Your task to perform on an android device: What's the news in Colombia? Image 0: 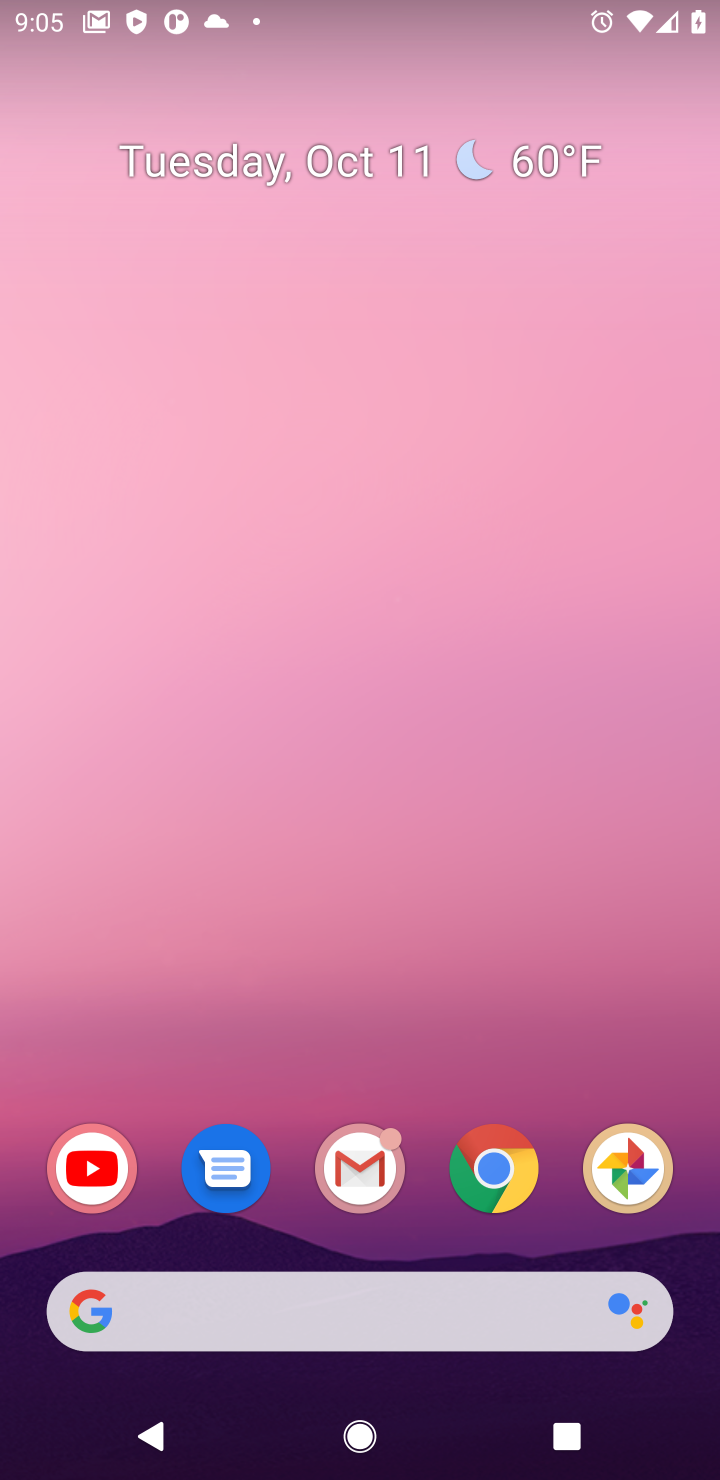
Step 0: click (477, 1181)
Your task to perform on an android device: What's the news in Colombia? Image 1: 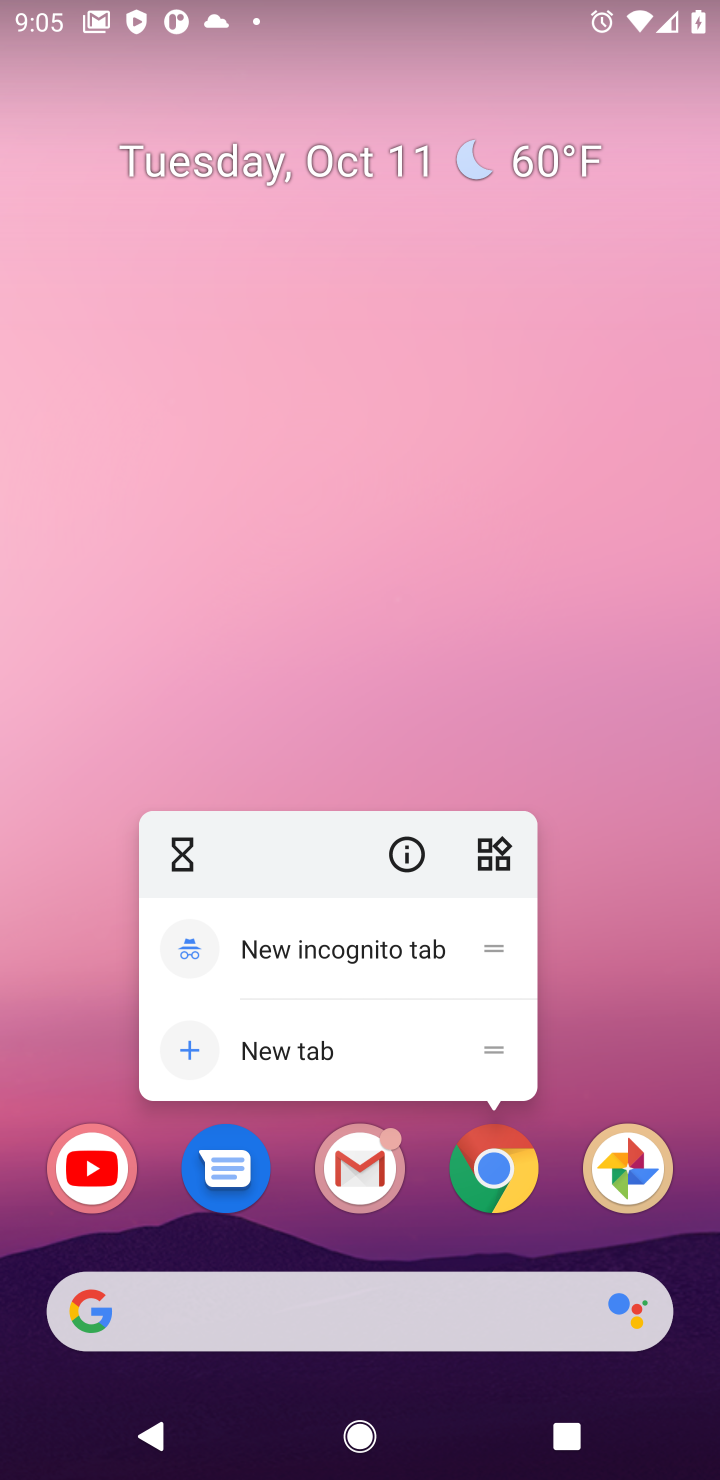
Step 1: press back button
Your task to perform on an android device: What's the news in Colombia? Image 2: 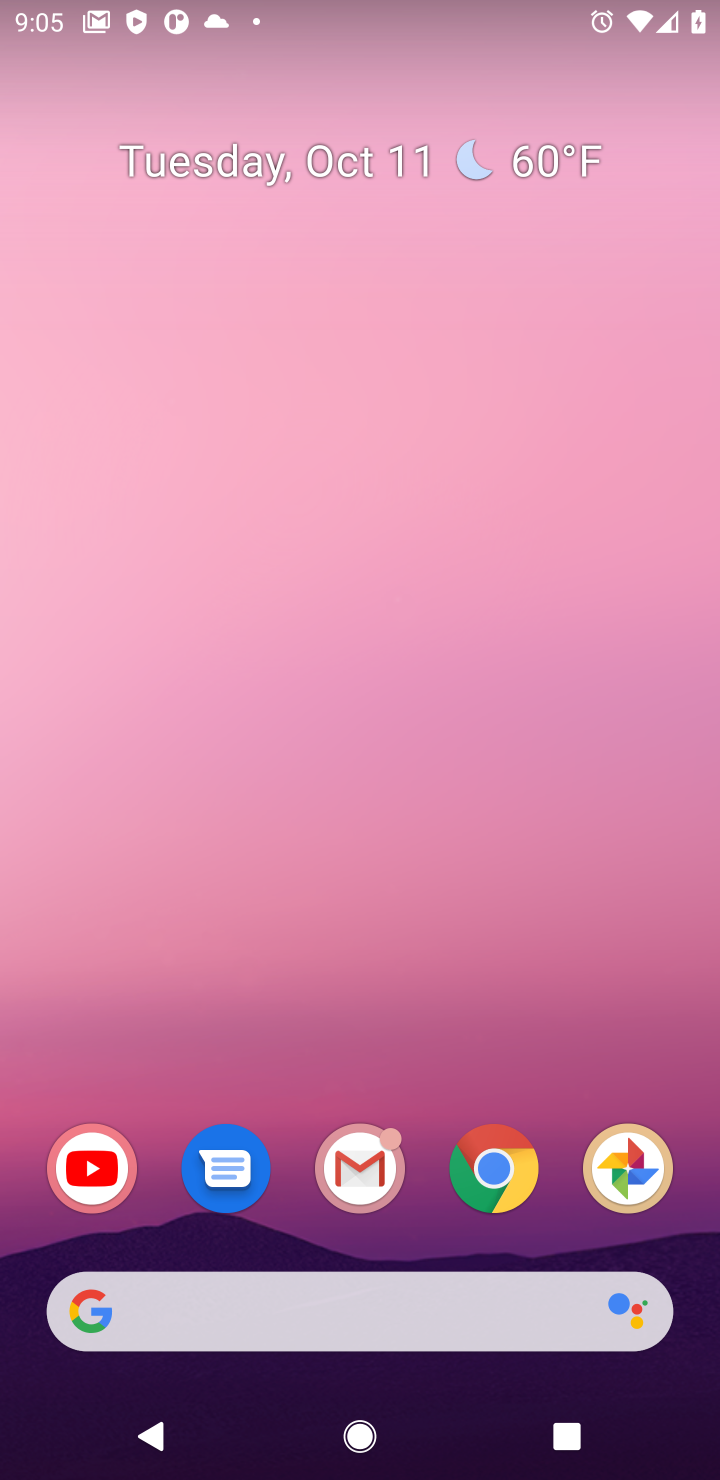
Step 2: click (488, 1138)
Your task to perform on an android device: What's the news in Colombia? Image 3: 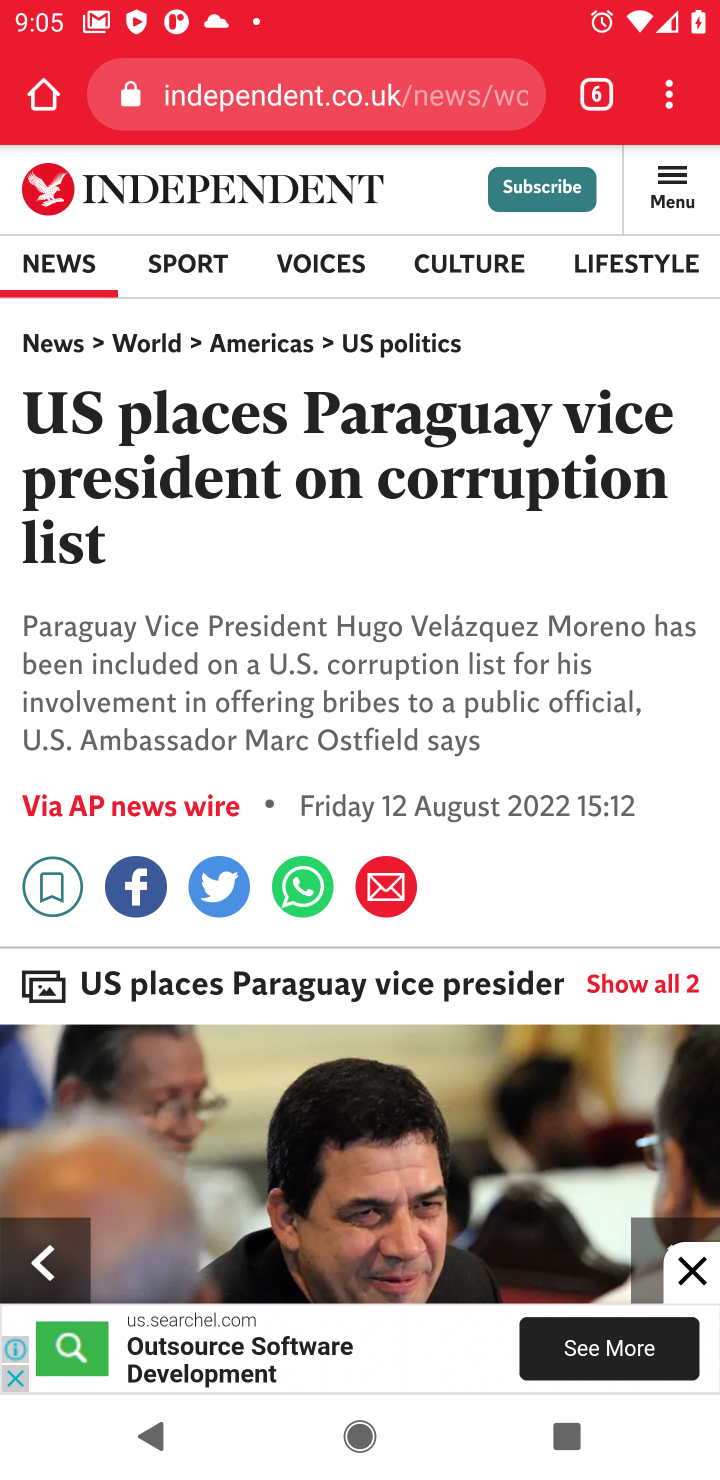
Step 3: click (359, 100)
Your task to perform on an android device: What's the news in Colombia? Image 4: 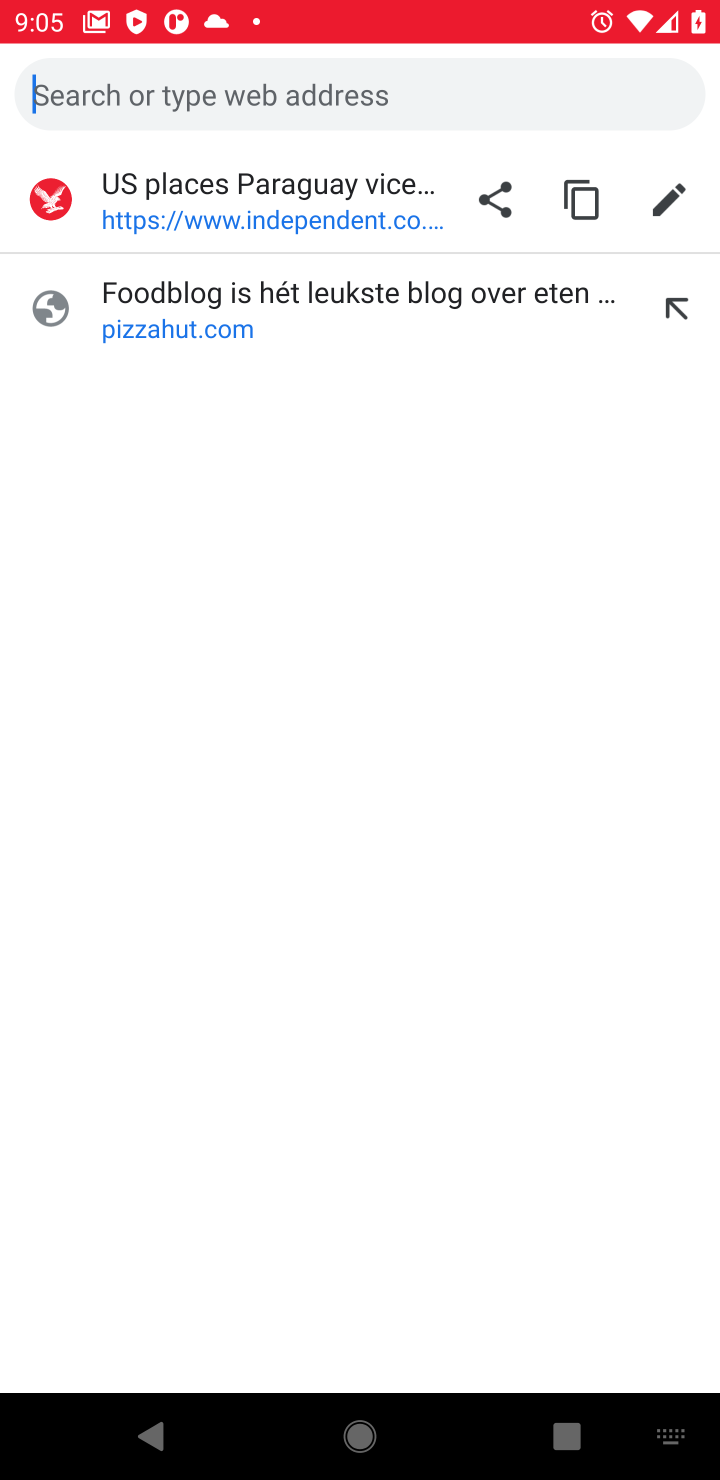
Step 4: type "news in colombia"
Your task to perform on an android device: What's the news in Colombia? Image 5: 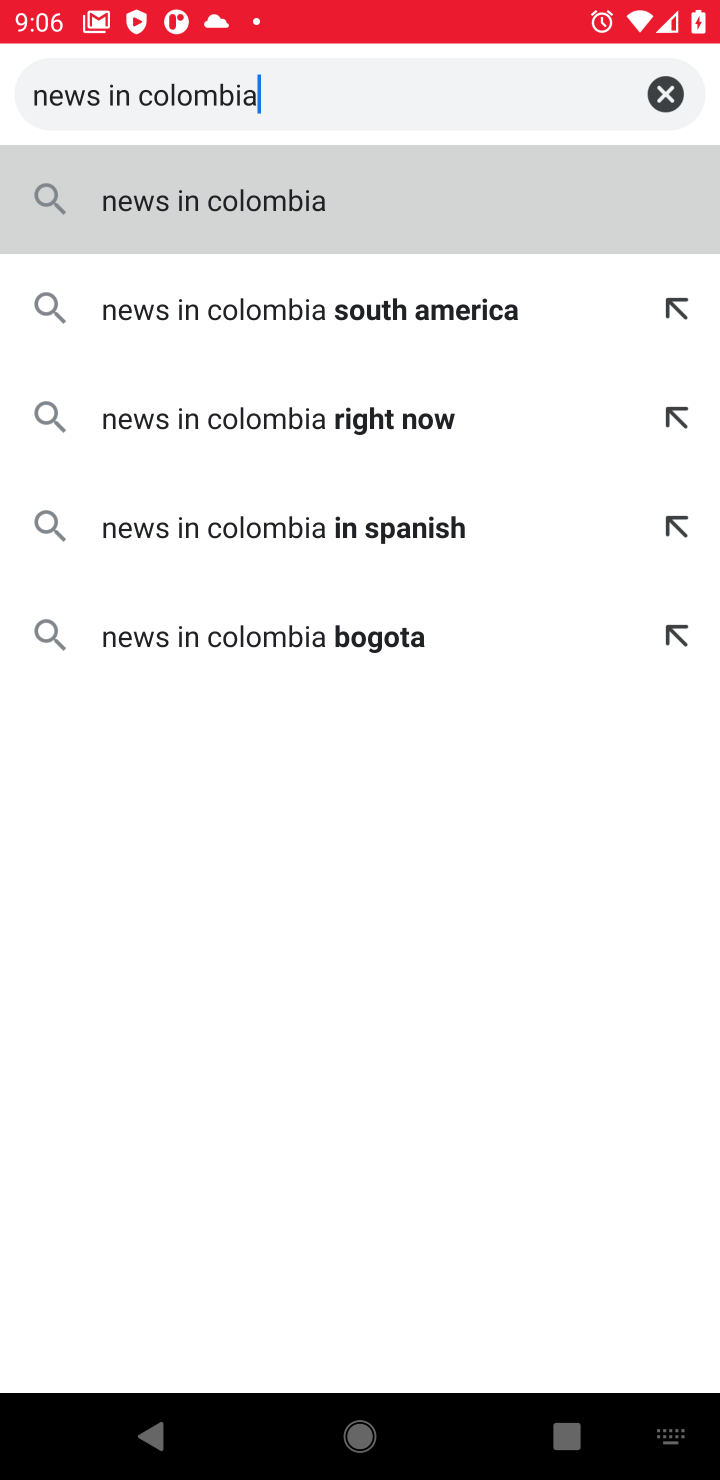
Step 5: click (227, 185)
Your task to perform on an android device: What's the news in Colombia? Image 6: 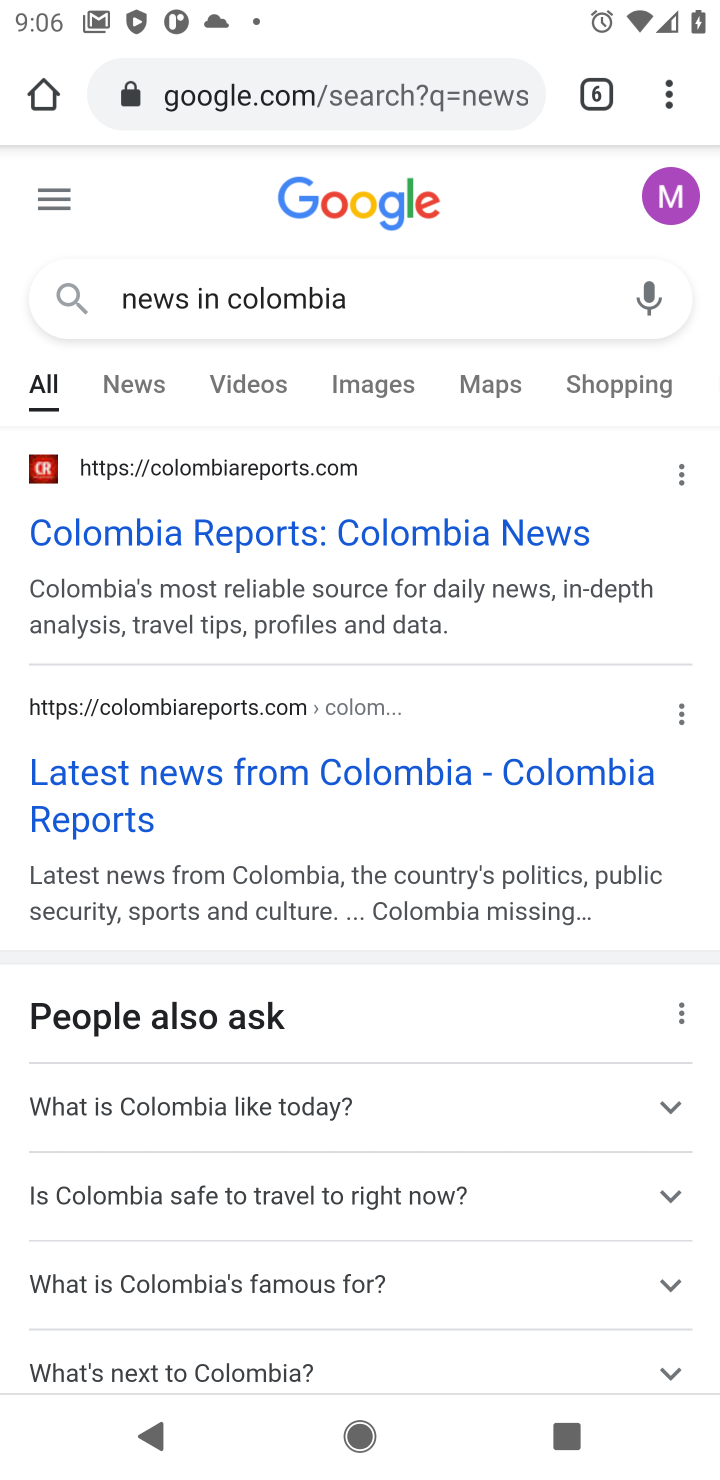
Step 6: click (225, 767)
Your task to perform on an android device: What's the news in Colombia? Image 7: 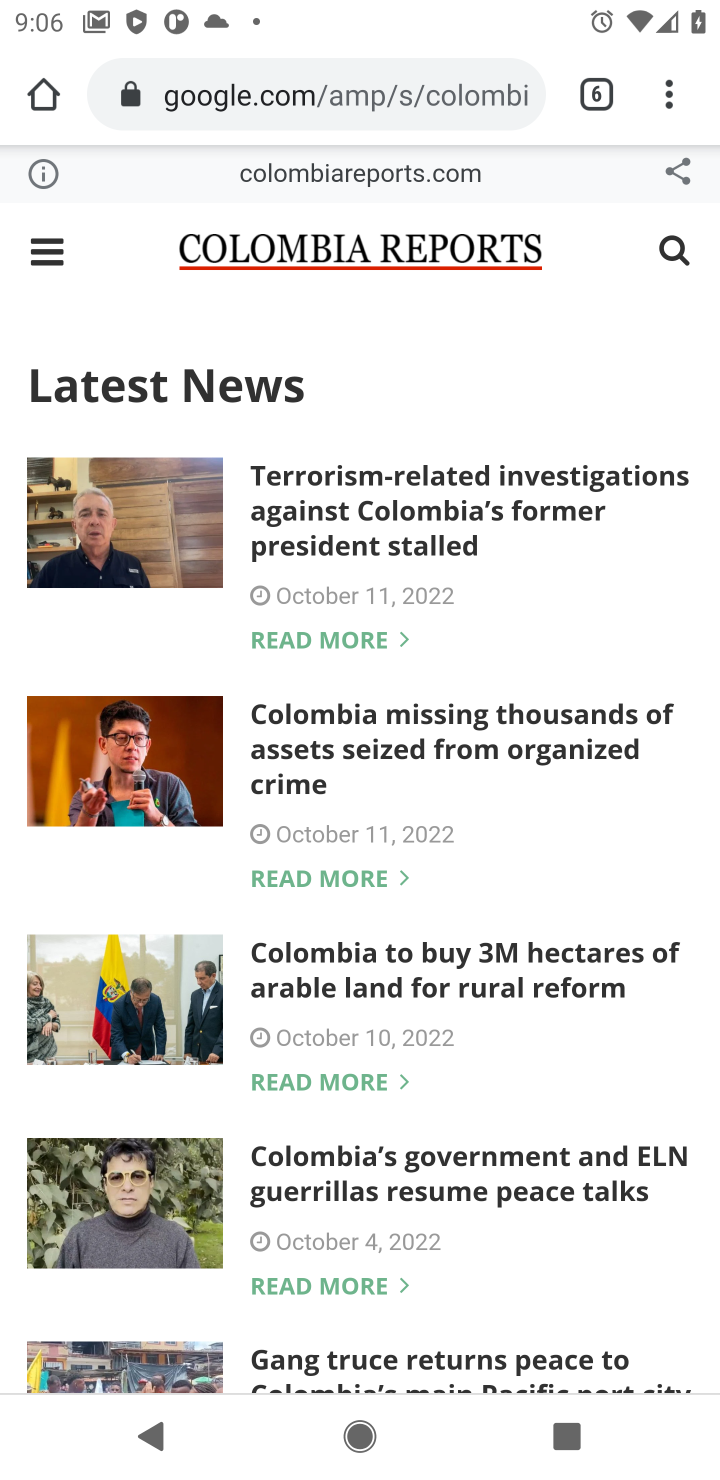
Step 7: drag from (363, 819) to (416, 342)
Your task to perform on an android device: What's the news in Colombia? Image 8: 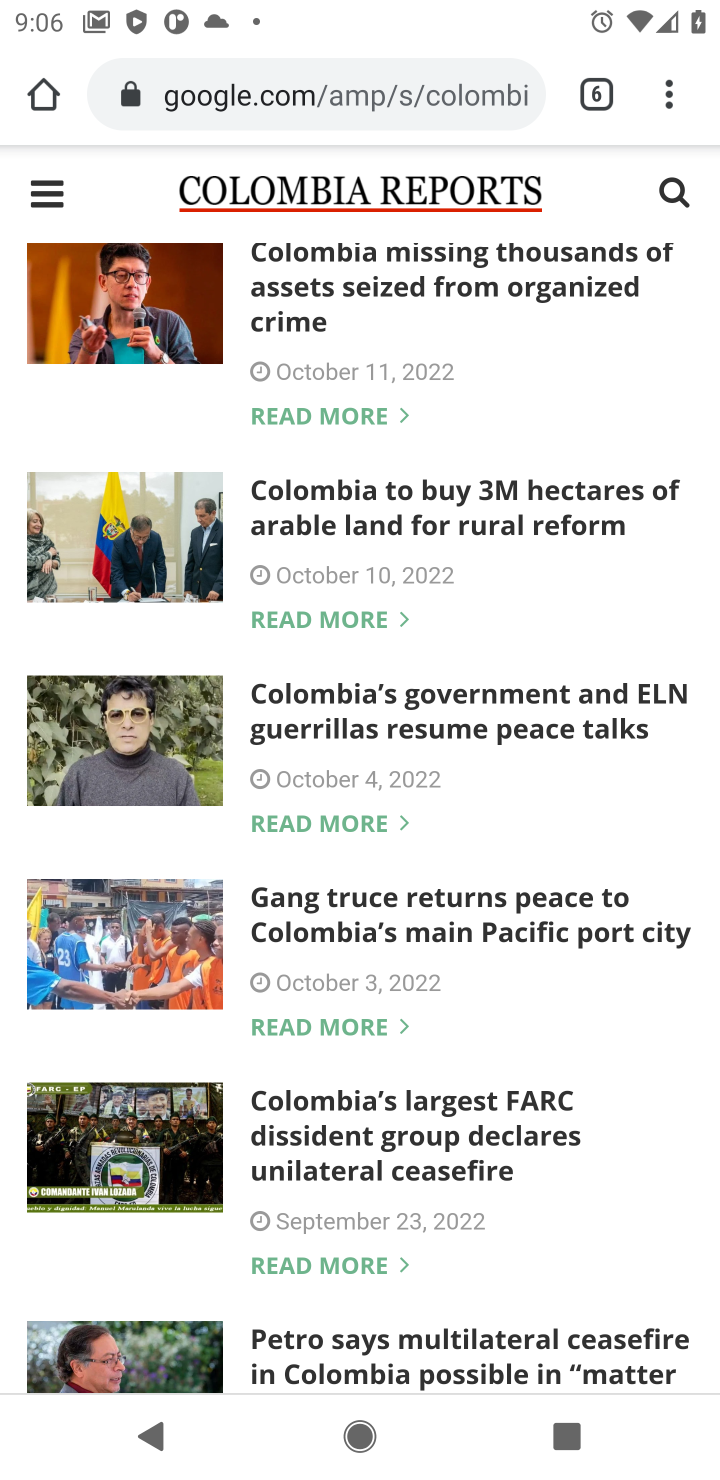
Step 8: click (318, 678)
Your task to perform on an android device: What's the news in Colombia? Image 9: 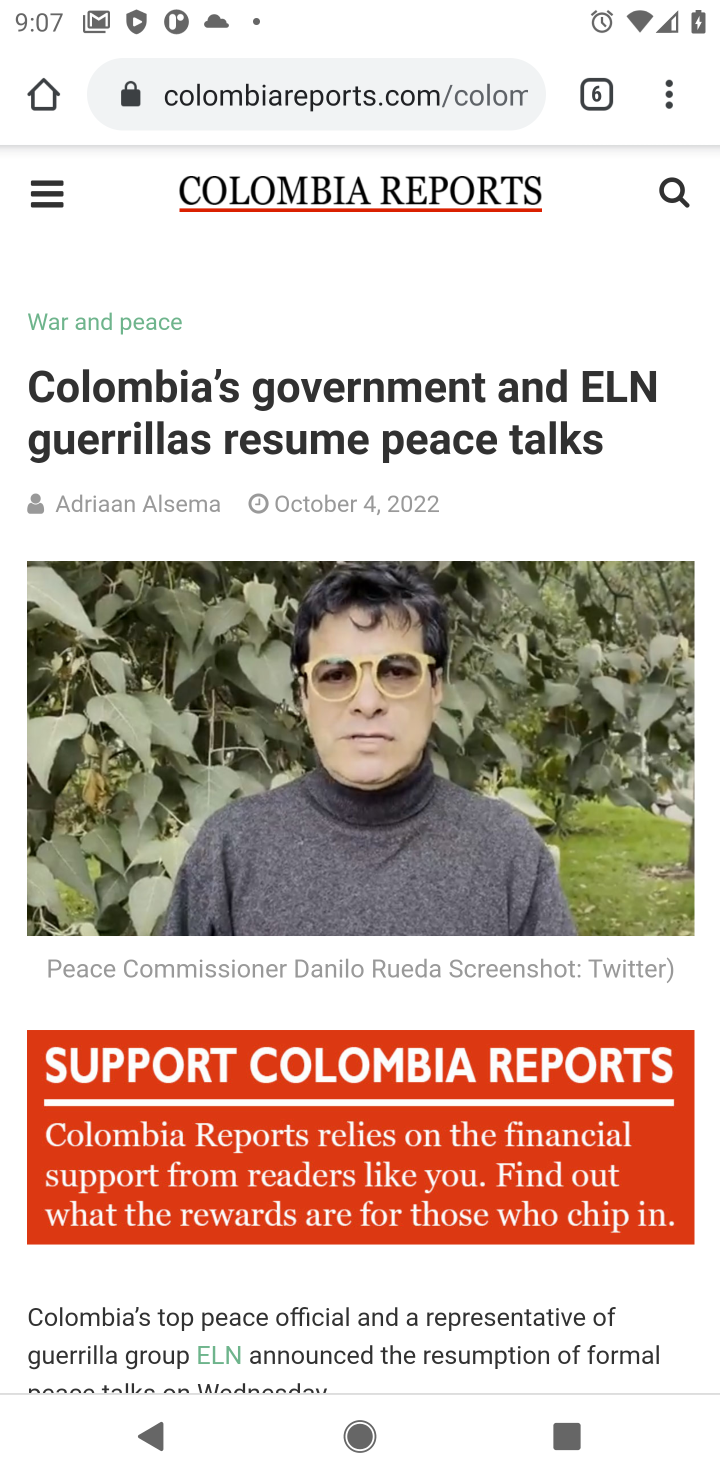
Step 9: task complete